Your task to perform on an android device: open wifi settings Image 0: 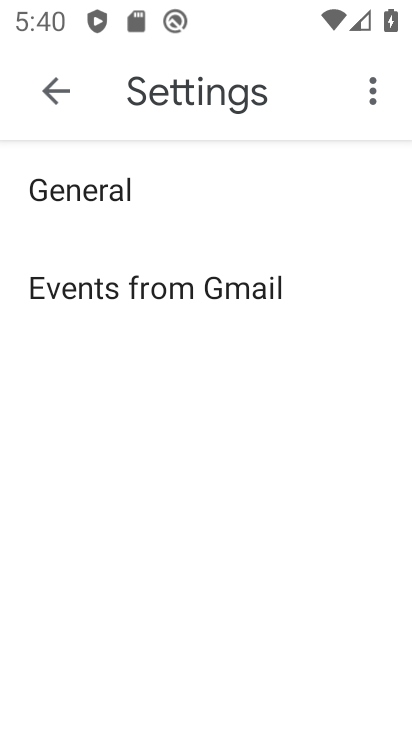
Step 0: press back button
Your task to perform on an android device: open wifi settings Image 1: 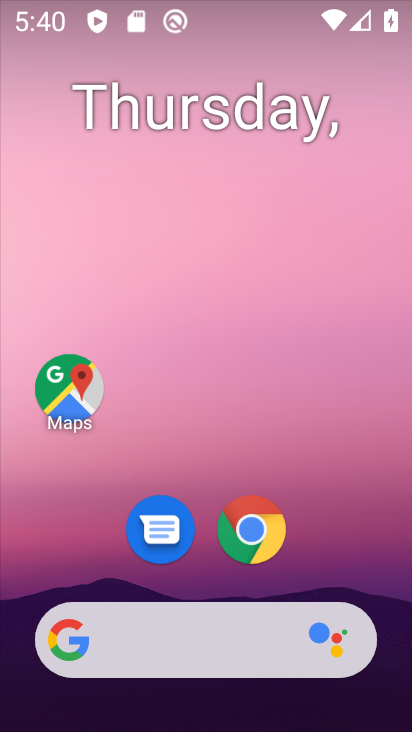
Step 1: drag from (323, 555) to (237, 112)
Your task to perform on an android device: open wifi settings Image 2: 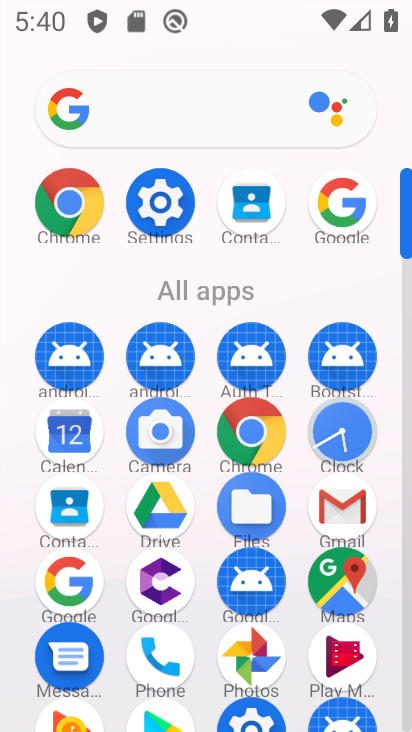
Step 2: click (161, 204)
Your task to perform on an android device: open wifi settings Image 3: 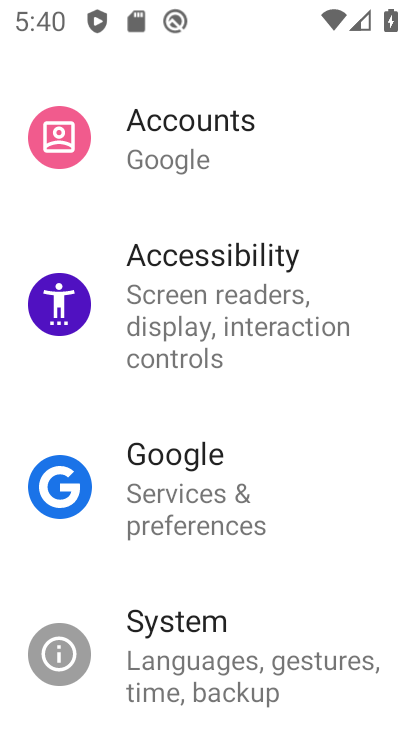
Step 3: drag from (196, 209) to (212, 336)
Your task to perform on an android device: open wifi settings Image 4: 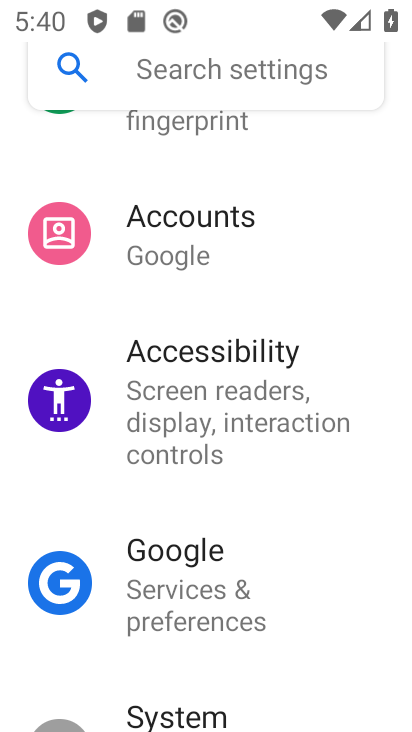
Step 4: drag from (227, 177) to (225, 285)
Your task to perform on an android device: open wifi settings Image 5: 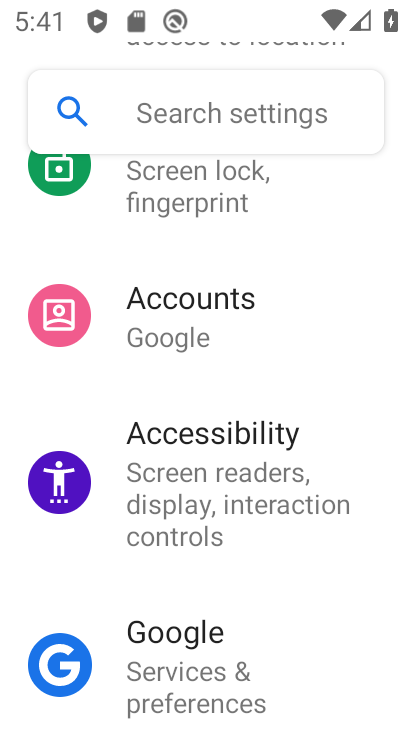
Step 5: drag from (224, 249) to (252, 352)
Your task to perform on an android device: open wifi settings Image 6: 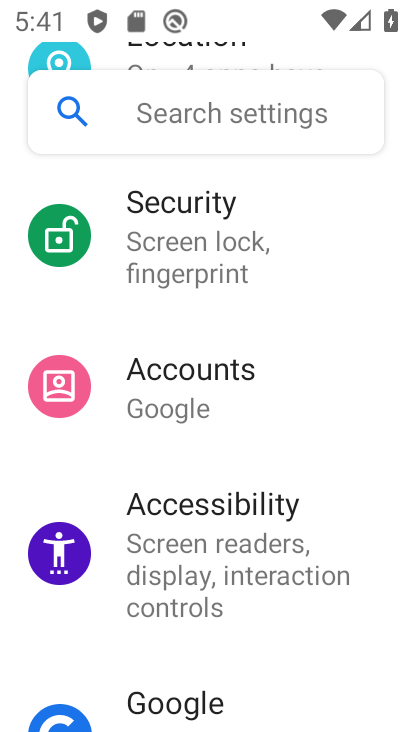
Step 6: drag from (267, 184) to (288, 275)
Your task to perform on an android device: open wifi settings Image 7: 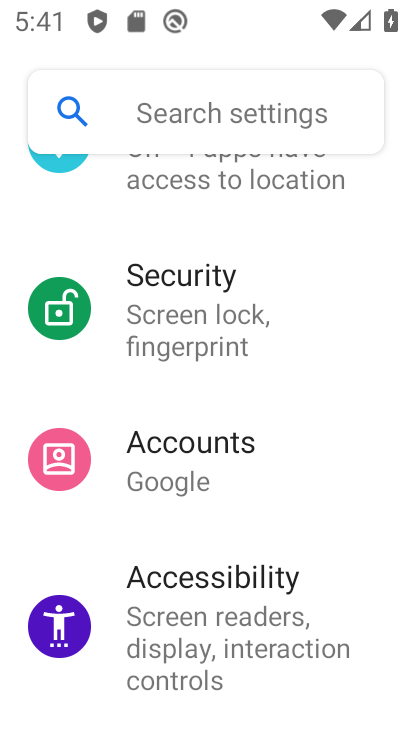
Step 7: drag from (284, 273) to (290, 443)
Your task to perform on an android device: open wifi settings Image 8: 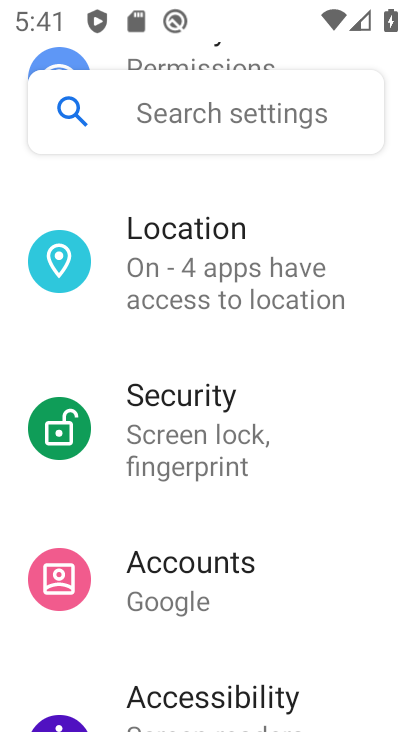
Step 8: drag from (276, 231) to (277, 398)
Your task to perform on an android device: open wifi settings Image 9: 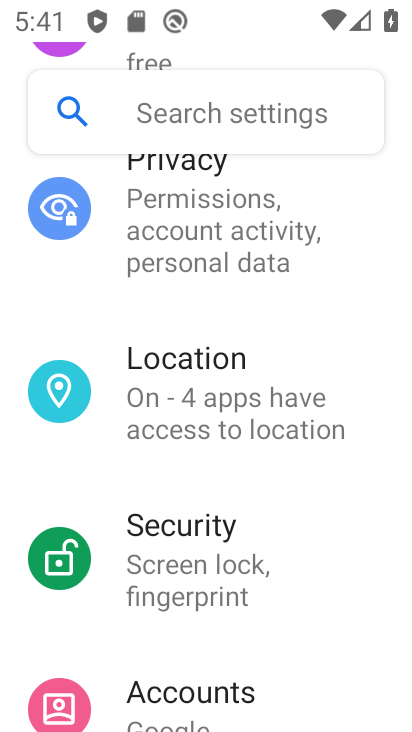
Step 9: drag from (247, 314) to (258, 467)
Your task to perform on an android device: open wifi settings Image 10: 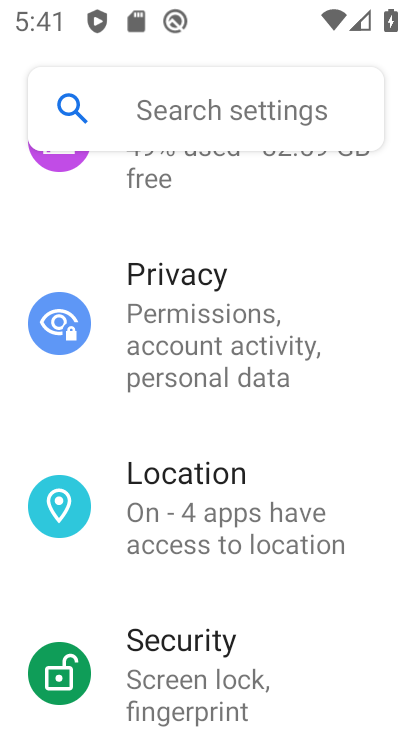
Step 10: drag from (223, 238) to (257, 416)
Your task to perform on an android device: open wifi settings Image 11: 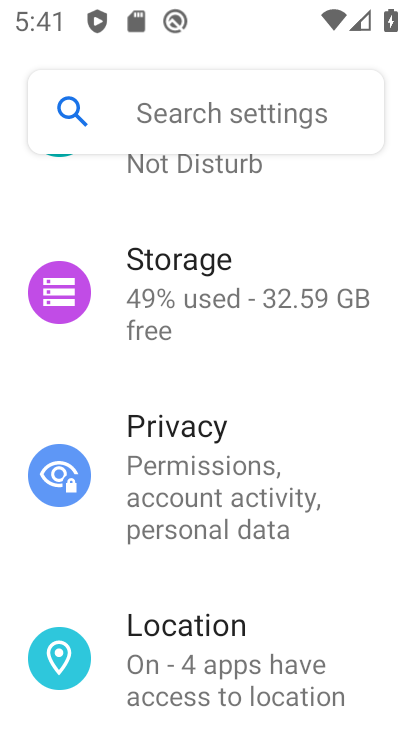
Step 11: drag from (231, 220) to (251, 310)
Your task to perform on an android device: open wifi settings Image 12: 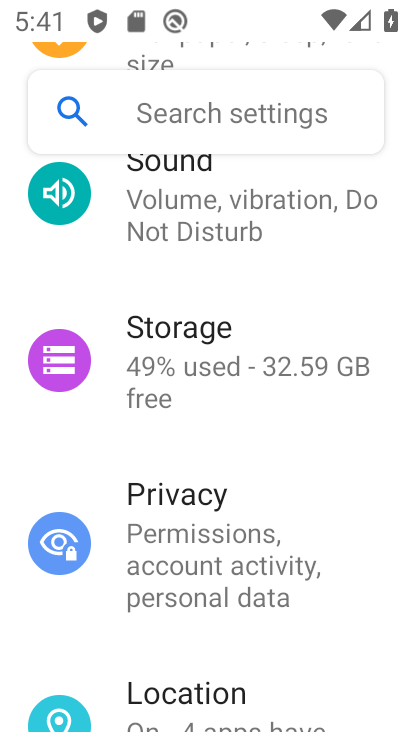
Step 12: drag from (240, 261) to (268, 416)
Your task to perform on an android device: open wifi settings Image 13: 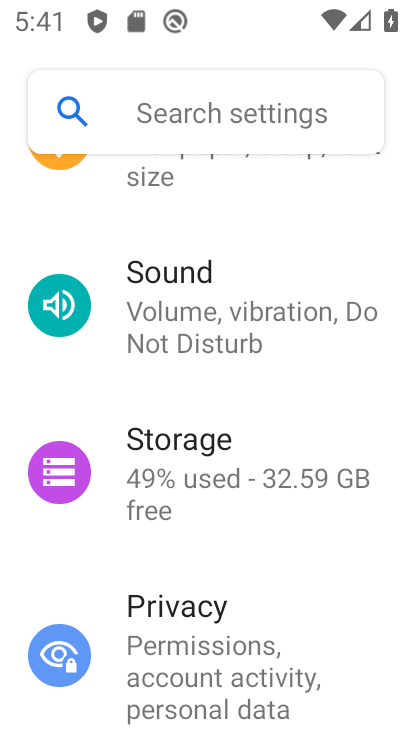
Step 13: drag from (258, 214) to (299, 343)
Your task to perform on an android device: open wifi settings Image 14: 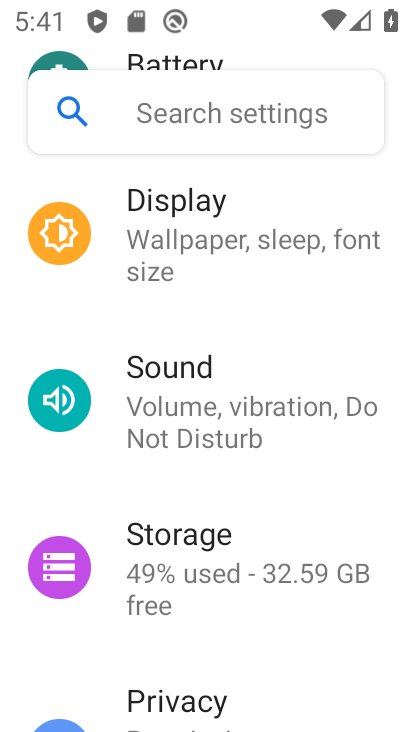
Step 14: drag from (254, 282) to (315, 416)
Your task to perform on an android device: open wifi settings Image 15: 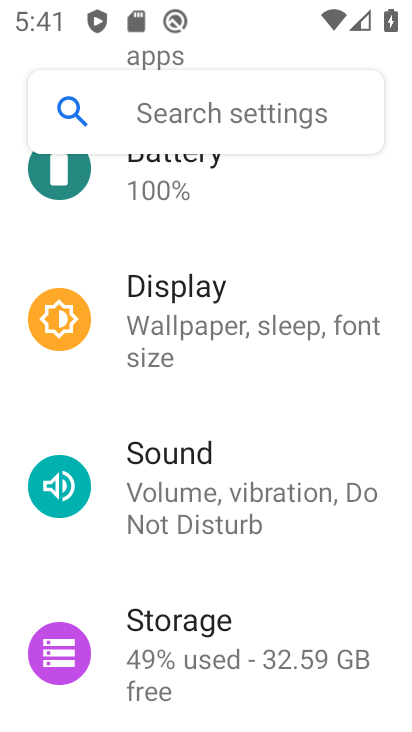
Step 15: drag from (230, 252) to (267, 433)
Your task to perform on an android device: open wifi settings Image 16: 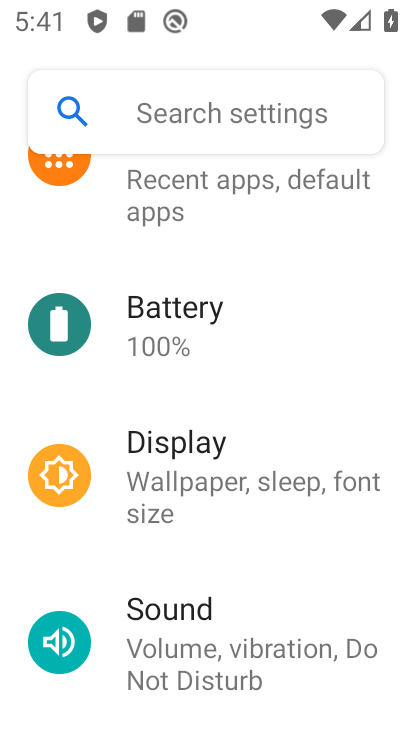
Step 16: drag from (232, 267) to (267, 393)
Your task to perform on an android device: open wifi settings Image 17: 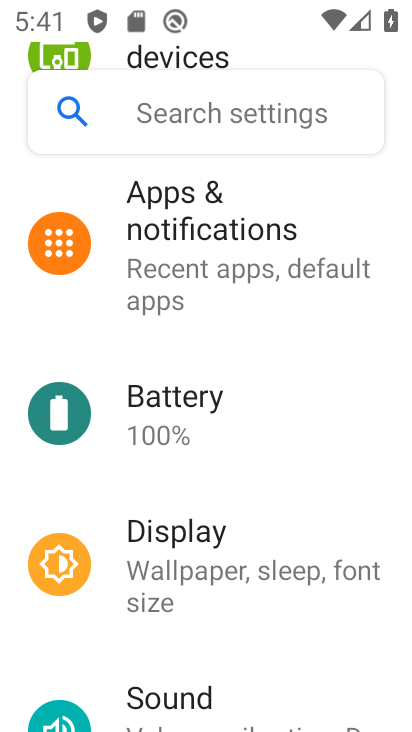
Step 17: drag from (246, 179) to (265, 327)
Your task to perform on an android device: open wifi settings Image 18: 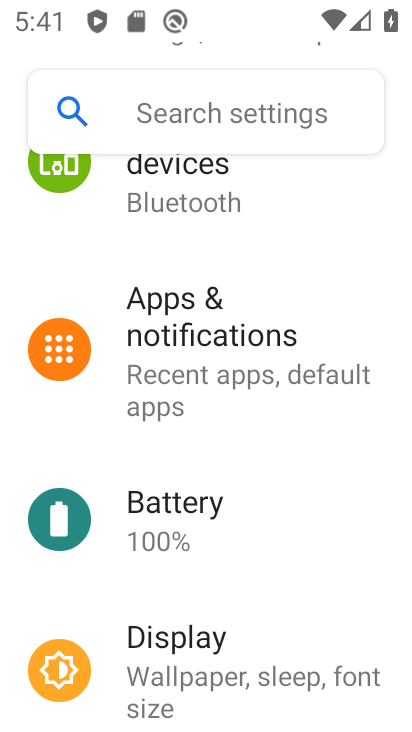
Step 18: drag from (236, 227) to (270, 357)
Your task to perform on an android device: open wifi settings Image 19: 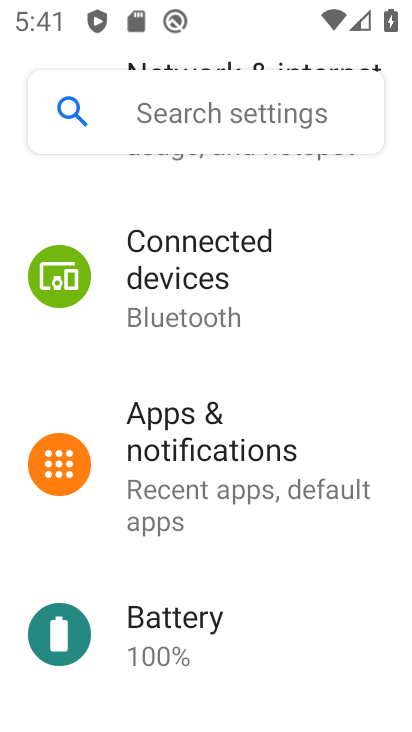
Step 19: drag from (227, 200) to (248, 360)
Your task to perform on an android device: open wifi settings Image 20: 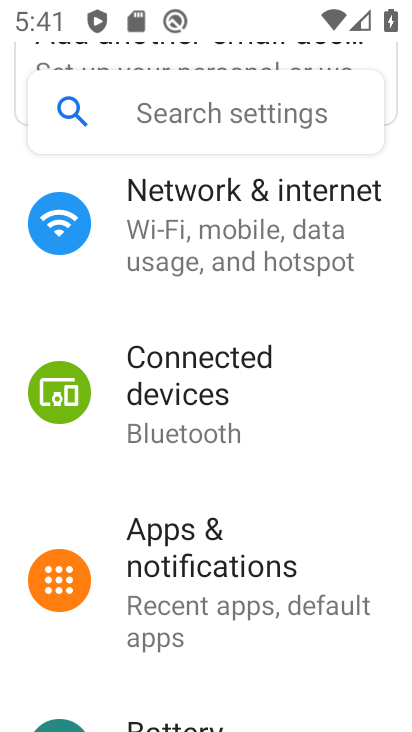
Step 20: click (215, 195)
Your task to perform on an android device: open wifi settings Image 21: 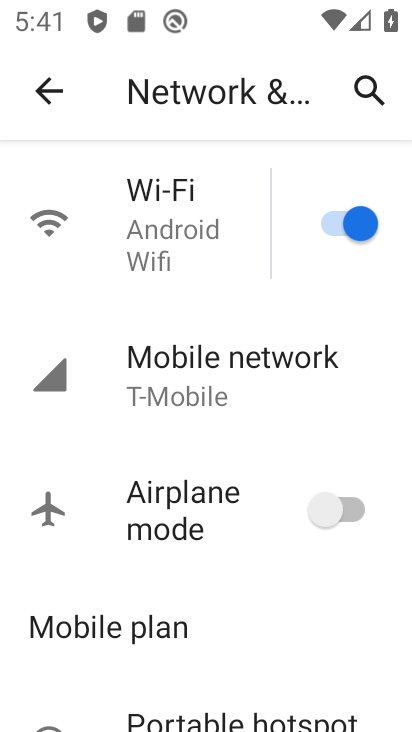
Step 21: click (162, 196)
Your task to perform on an android device: open wifi settings Image 22: 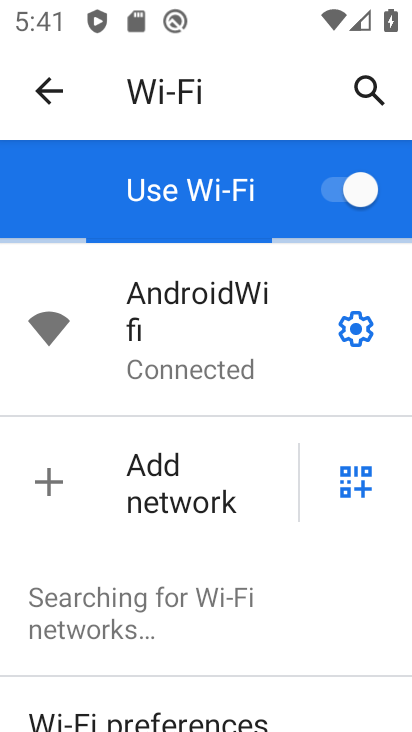
Step 22: click (359, 329)
Your task to perform on an android device: open wifi settings Image 23: 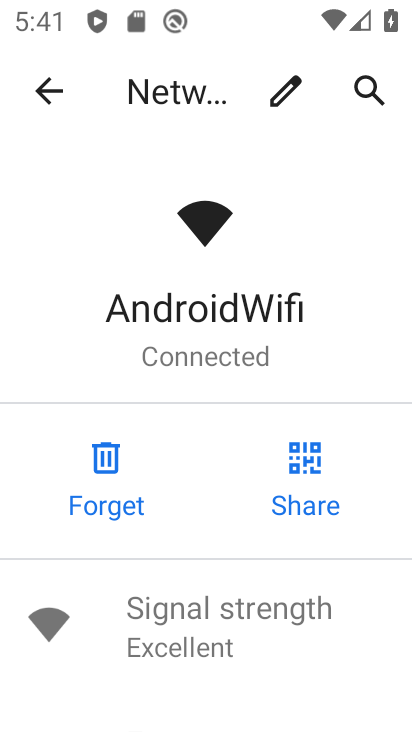
Step 23: task complete